Your task to perform on an android device: Open the phone app and click the voicemail tab. Image 0: 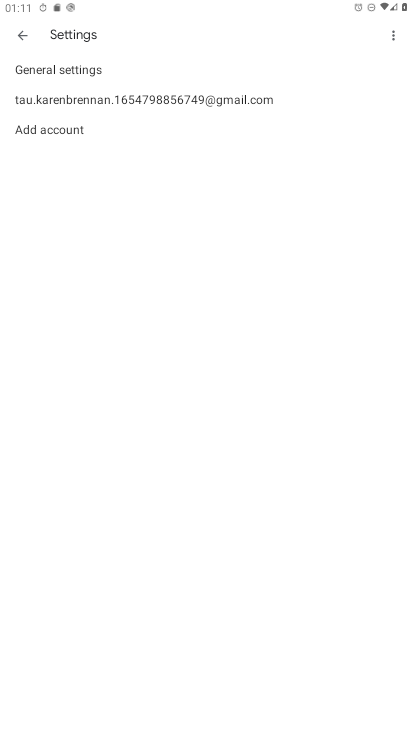
Step 0: press home button
Your task to perform on an android device: Open the phone app and click the voicemail tab. Image 1: 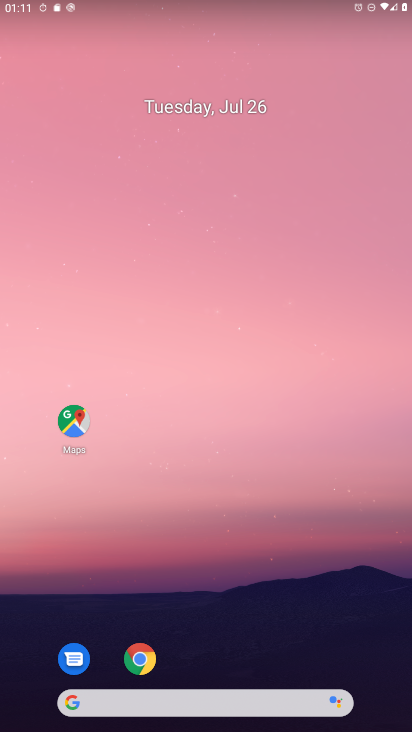
Step 1: drag from (240, 640) to (299, 69)
Your task to perform on an android device: Open the phone app and click the voicemail tab. Image 2: 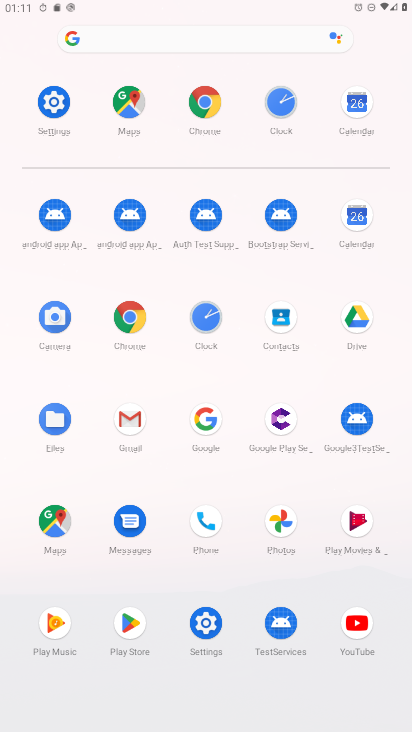
Step 2: click (199, 516)
Your task to perform on an android device: Open the phone app and click the voicemail tab. Image 3: 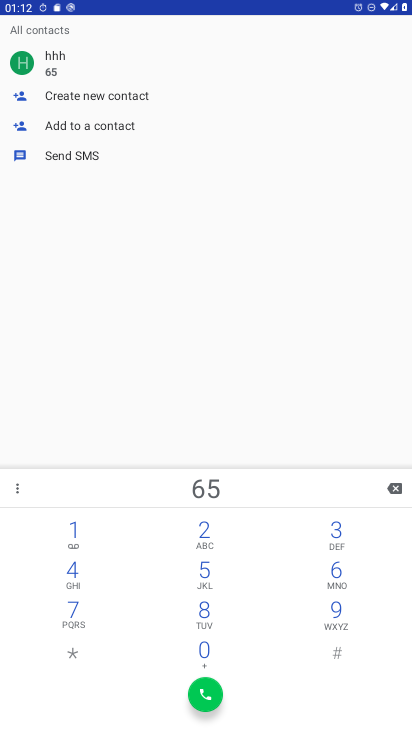
Step 3: press back button
Your task to perform on an android device: Open the phone app and click the voicemail tab. Image 4: 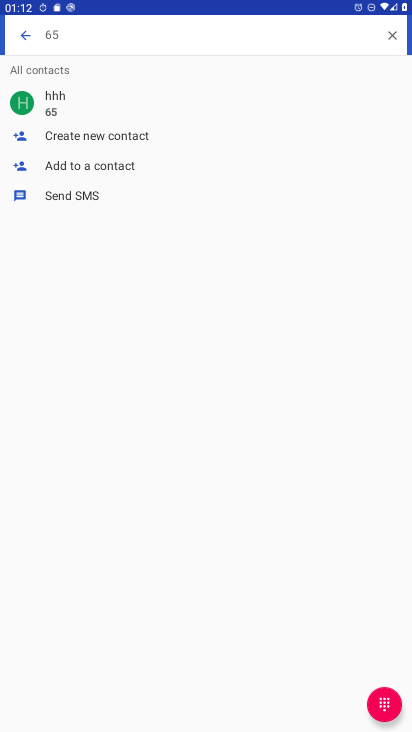
Step 4: click (22, 35)
Your task to perform on an android device: Open the phone app and click the voicemail tab. Image 5: 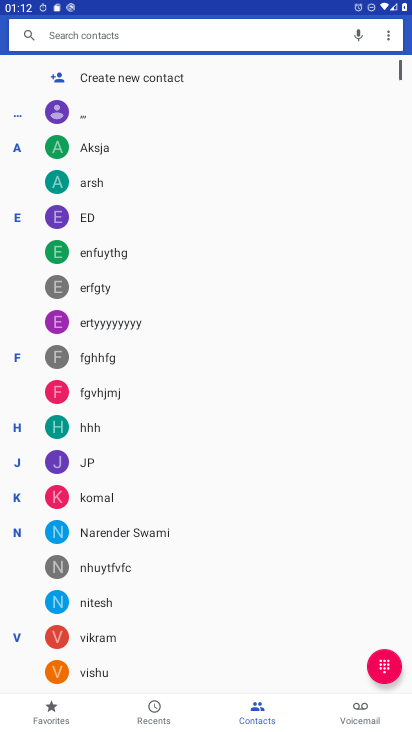
Step 5: click (360, 705)
Your task to perform on an android device: Open the phone app and click the voicemail tab. Image 6: 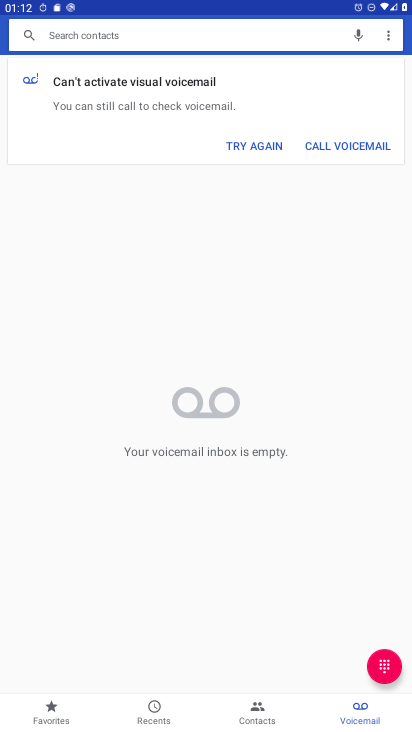
Step 6: task complete